Your task to perform on an android device: Do I have any events today? Image 0: 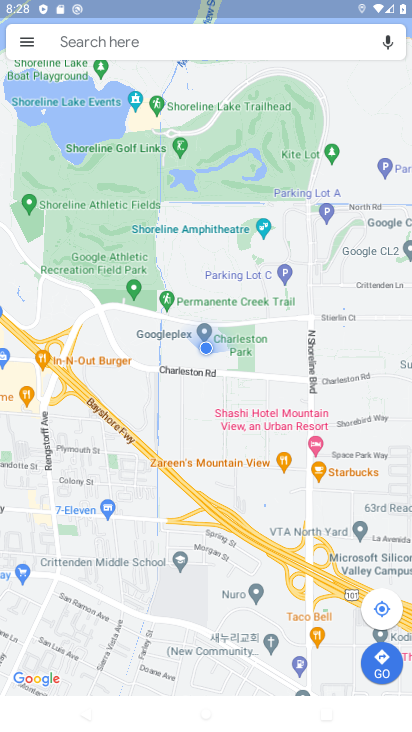
Step 0: press back button
Your task to perform on an android device: Do I have any events today? Image 1: 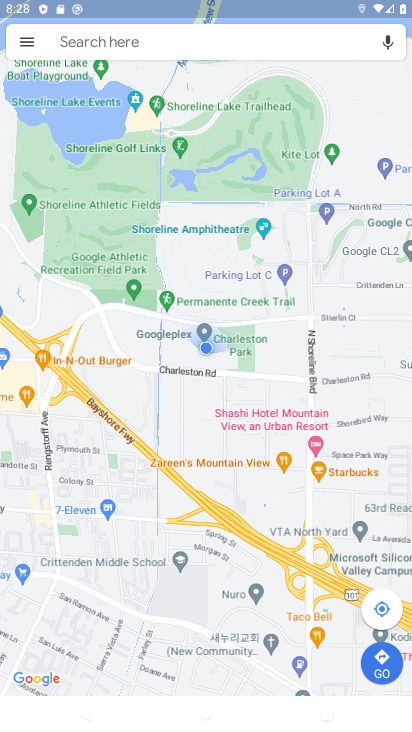
Step 1: press back button
Your task to perform on an android device: Do I have any events today? Image 2: 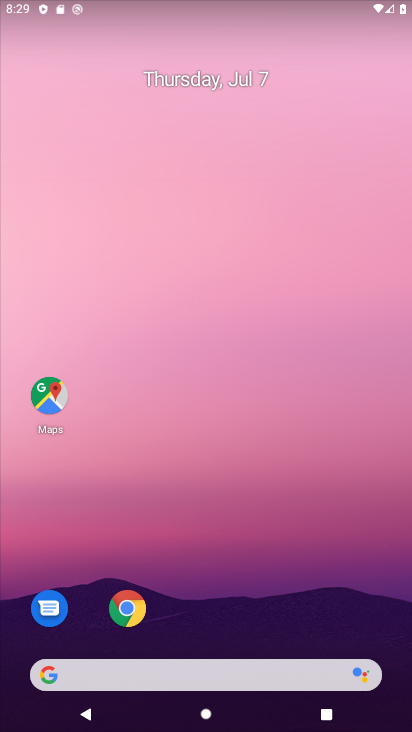
Step 2: drag from (227, 625) to (71, 172)
Your task to perform on an android device: Do I have any events today? Image 3: 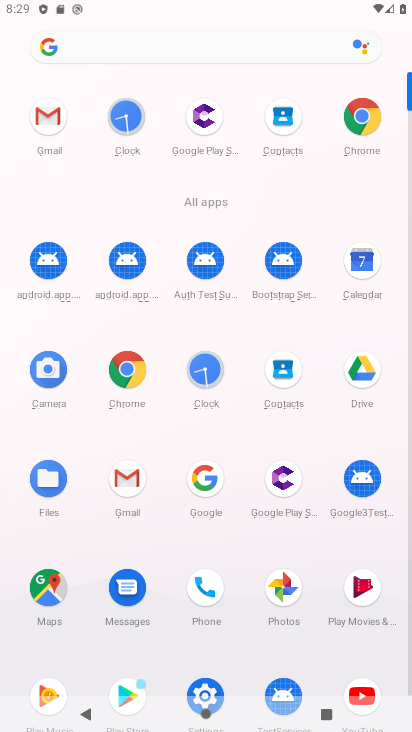
Step 3: click (363, 260)
Your task to perform on an android device: Do I have any events today? Image 4: 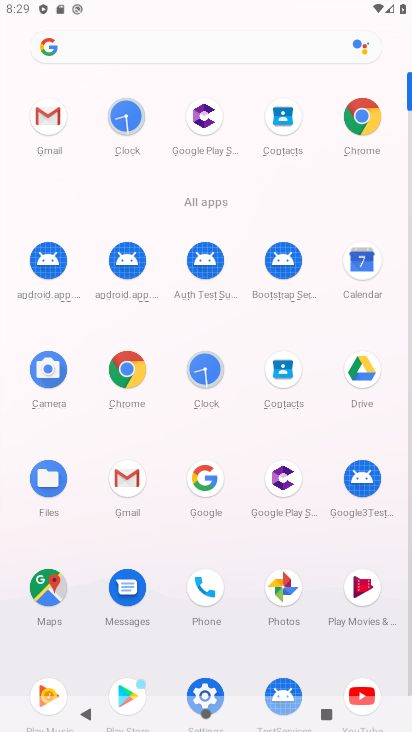
Step 4: click (363, 260)
Your task to perform on an android device: Do I have any events today? Image 5: 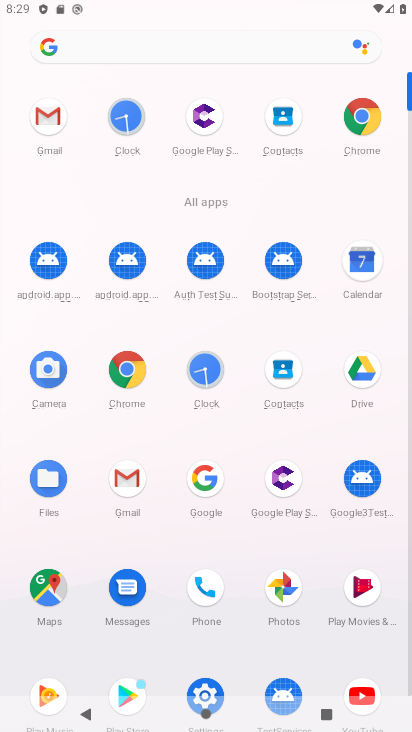
Step 5: click (363, 260)
Your task to perform on an android device: Do I have any events today? Image 6: 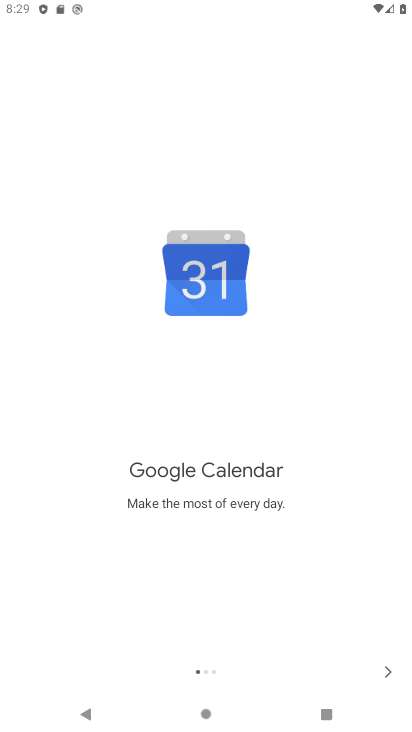
Step 6: click (395, 683)
Your task to perform on an android device: Do I have any events today? Image 7: 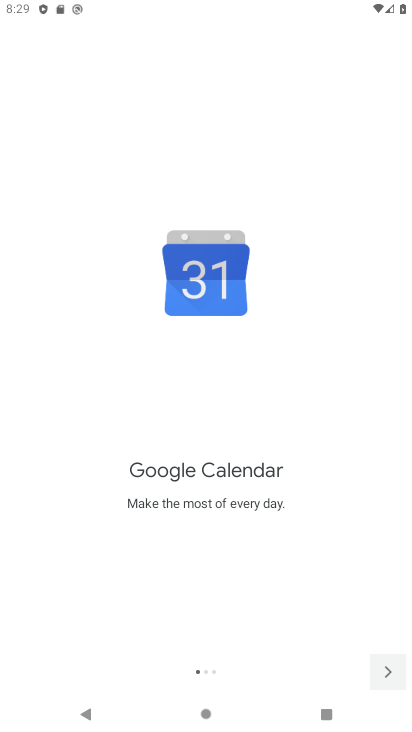
Step 7: click (386, 676)
Your task to perform on an android device: Do I have any events today? Image 8: 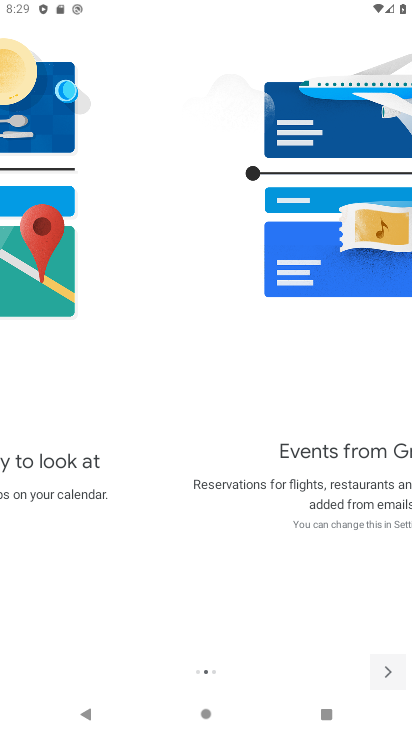
Step 8: click (391, 667)
Your task to perform on an android device: Do I have any events today? Image 9: 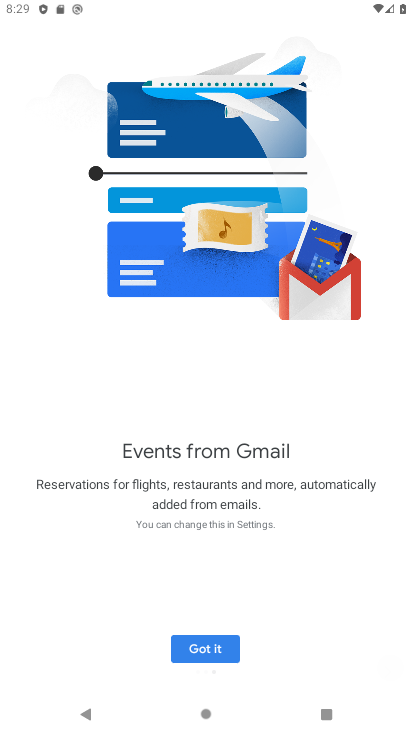
Step 9: click (391, 667)
Your task to perform on an android device: Do I have any events today? Image 10: 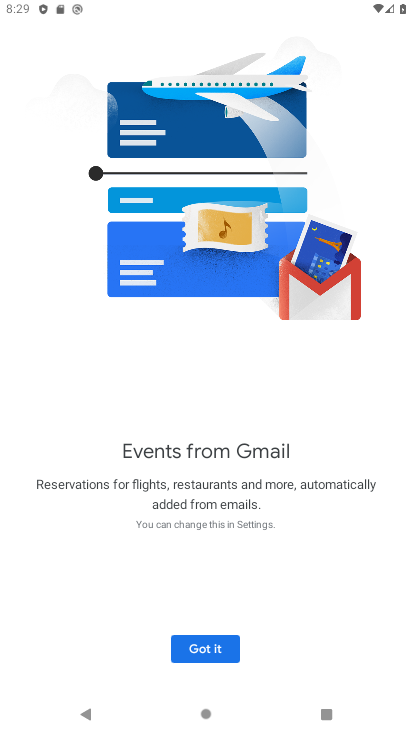
Step 10: click (391, 667)
Your task to perform on an android device: Do I have any events today? Image 11: 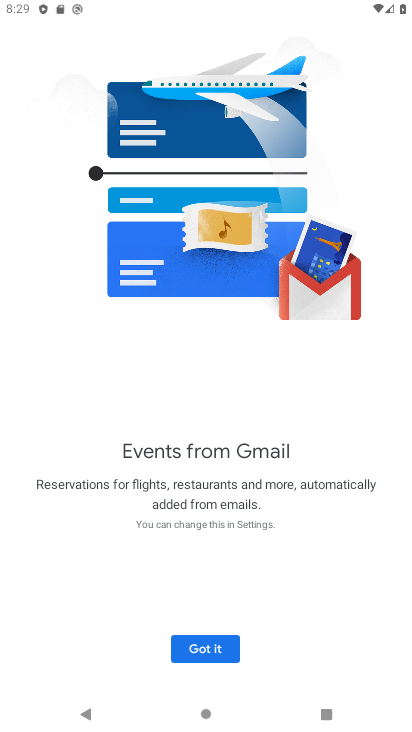
Step 11: click (391, 671)
Your task to perform on an android device: Do I have any events today? Image 12: 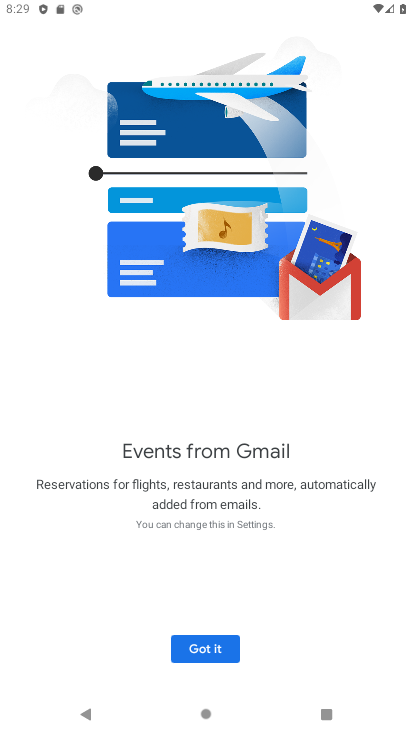
Step 12: click (239, 645)
Your task to perform on an android device: Do I have any events today? Image 13: 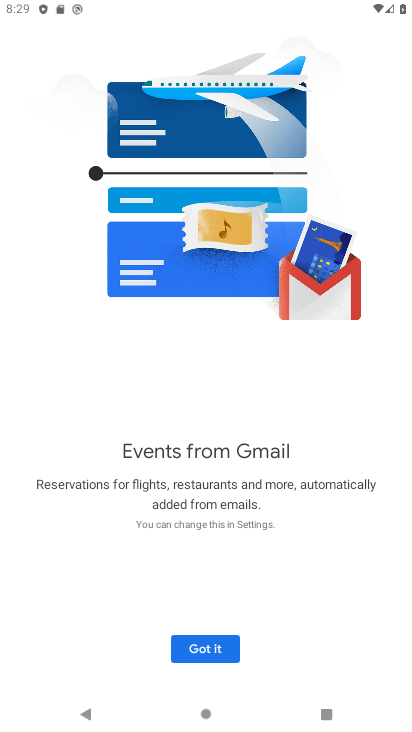
Step 13: click (232, 643)
Your task to perform on an android device: Do I have any events today? Image 14: 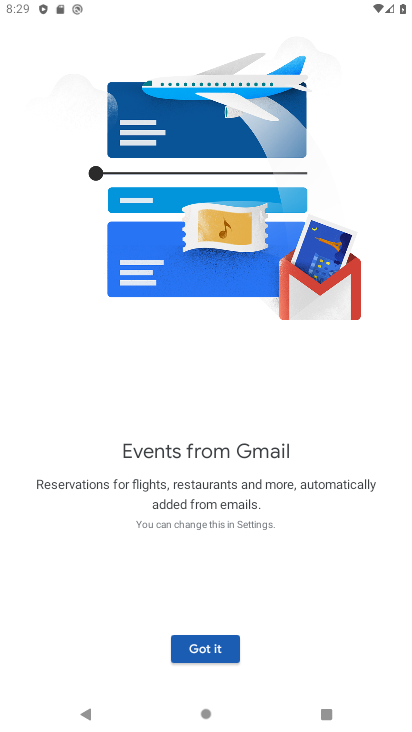
Step 14: click (224, 646)
Your task to perform on an android device: Do I have any events today? Image 15: 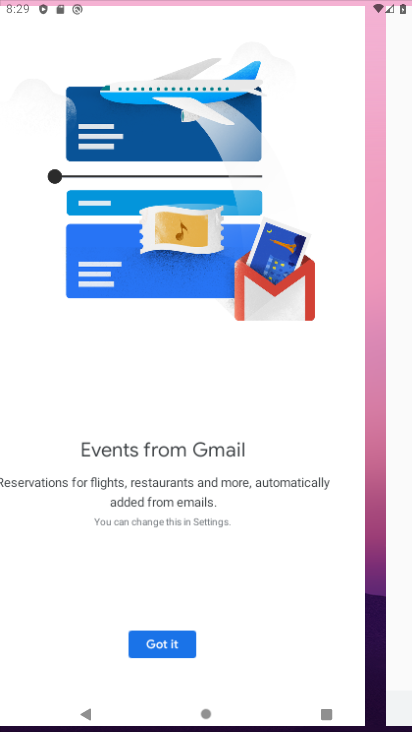
Step 15: click (225, 644)
Your task to perform on an android device: Do I have any events today? Image 16: 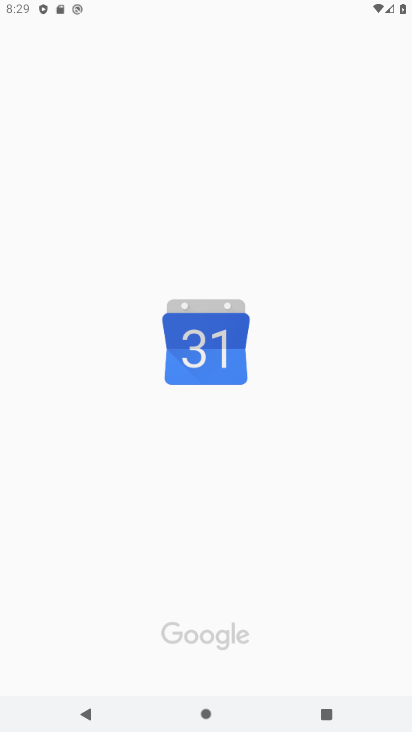
Step 16: click (225, 644)
Your task to perform on an android device: Do I have any events today? Image 17: 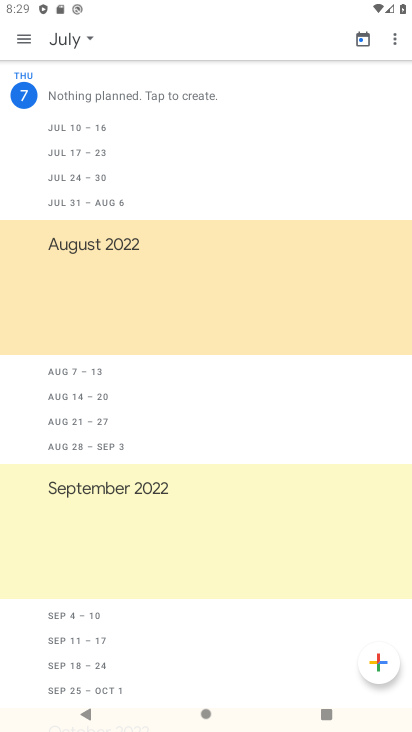
Step 17: task complete